Your task to perform on an android device: Search for logitech g910 on bestbuy.com, select the first entry, add it to the cart, then select checkout. Image 0: 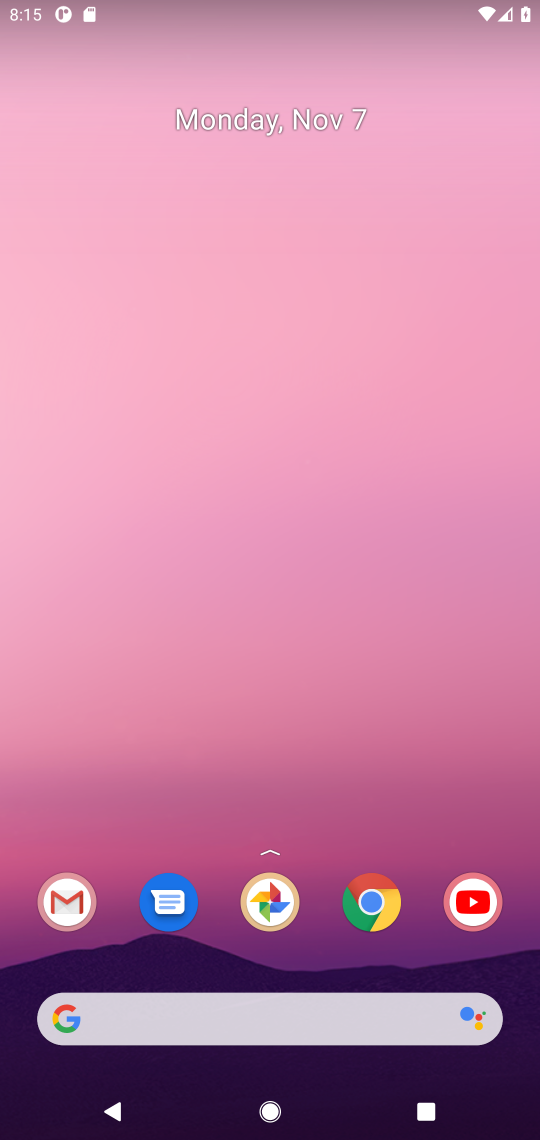
Step 0: click (358, 918)
Your task to perform on an android device: Search for logitech g910 on bestbuy.com, select the first entry, add it to the cart, then select checkout. Image 1: 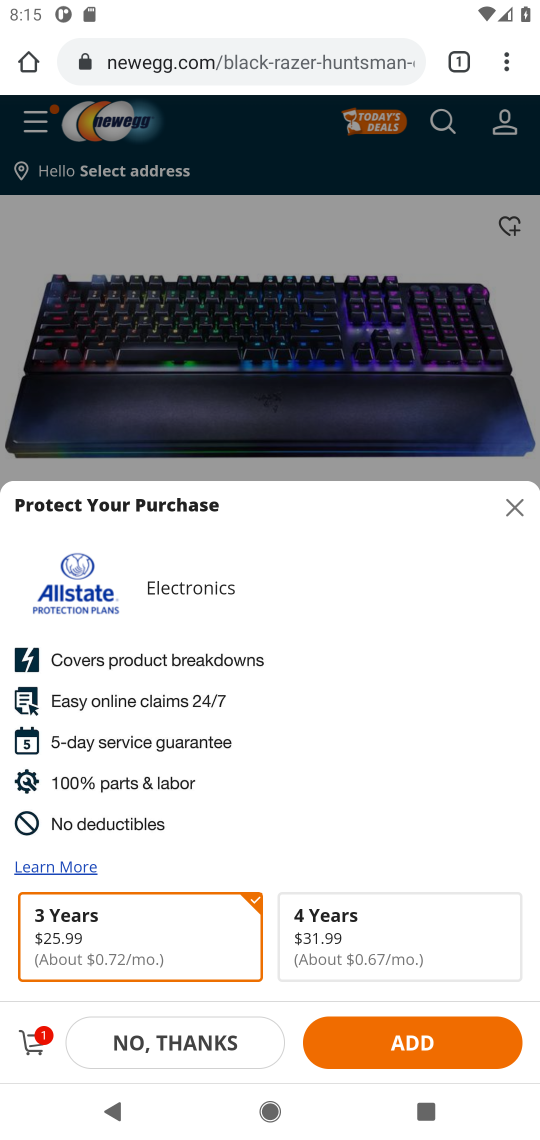
Step 1: click (210, 71)
Your task to perform on an android device: Search for logitech g910 on bestbuy.com, select the first entry, add it to the cart, then select checkout. Image 2: 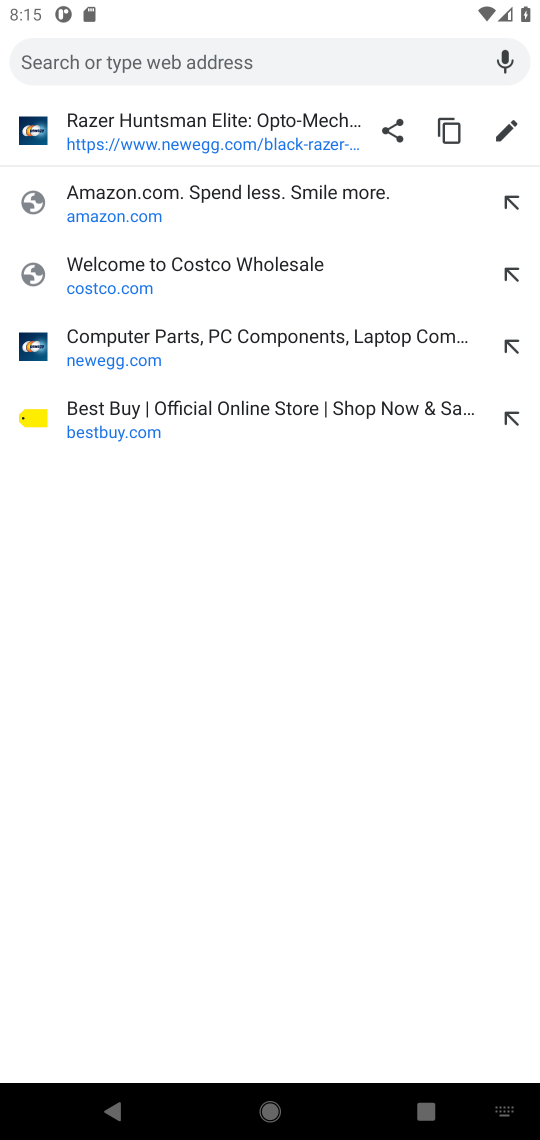
Step 2: click (140, 424)
Your task to perform on an android device: Search for logitech g910 on bestbuy.com, select the first entry, add it to the cart, then select checkout. Image 3: 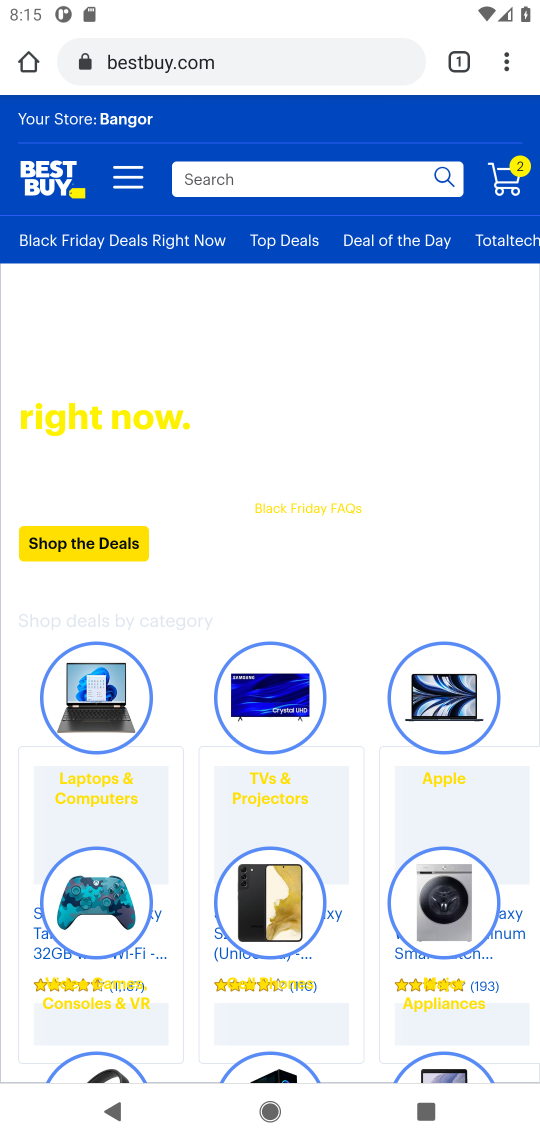
Step 3: click (196, 190)
Your task to perform on an android device: Search for logitech g910 on bestbuy.com, select the first entry, add it to the cart, then select checkout. Image 4: 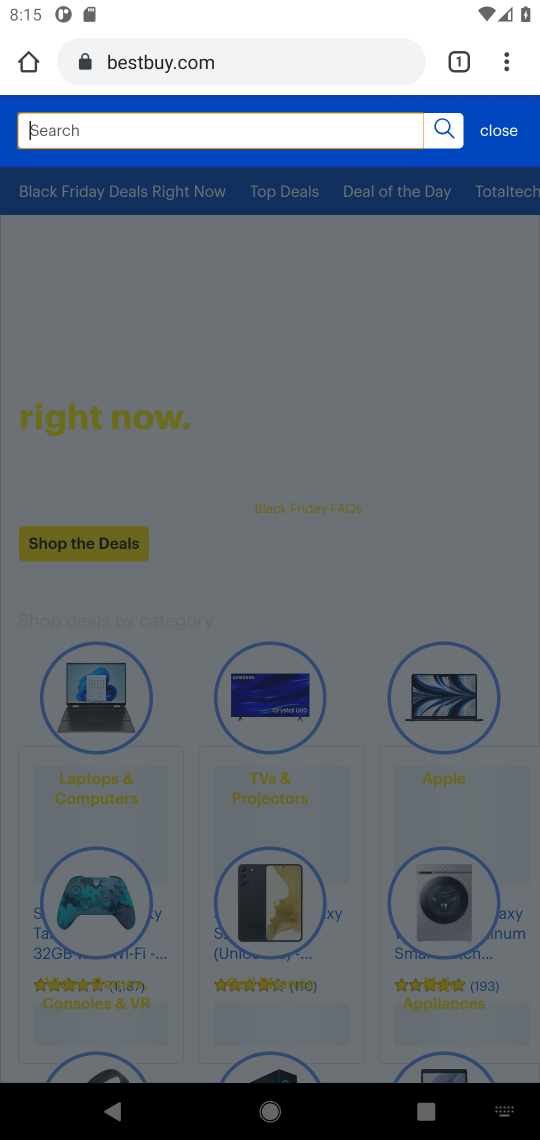
Step 4: type "logitech g910 "
Your task to perform on an android device: Search for logitech g910 on bestbuy.com, select the first entry, add it to the cart, then select checkout. Image 5: 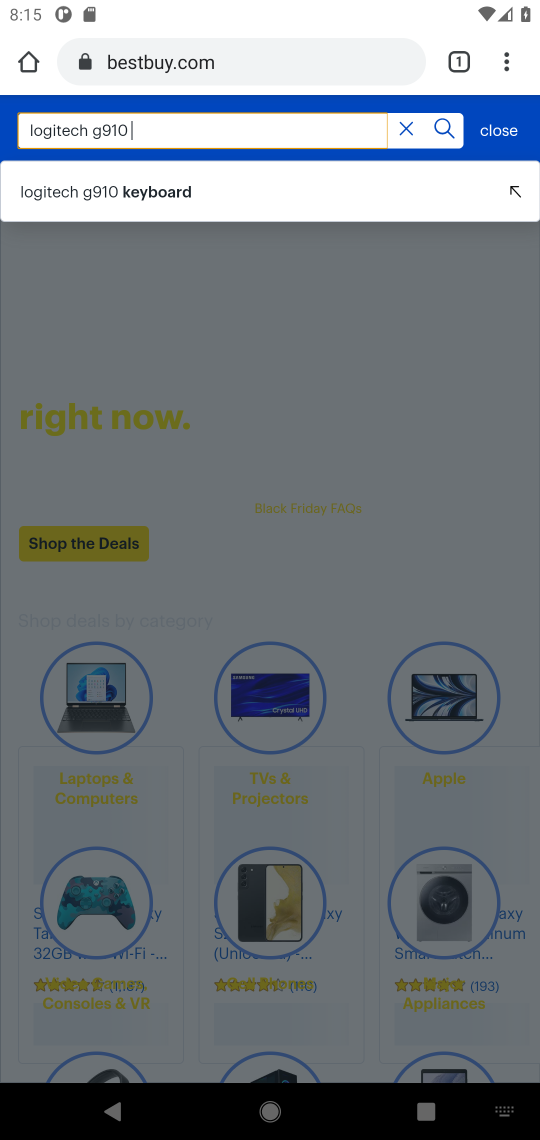
Step 5: click (446, 127)
Your task to perform on an android device: Search for logitech g910 on bestbuy.com, select the first entry, add it to the cart, then select checkout. Image 6: 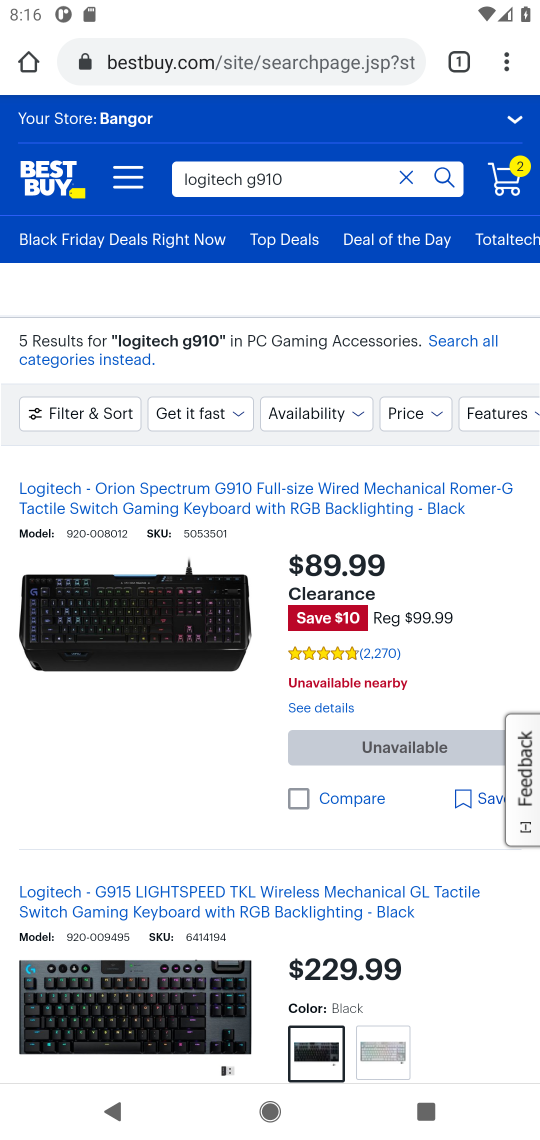
Step 6: click (167, 593)
Your task to perform on an android device: Search for logitech g910 on bestbuy.com, select the first entry, add it to the cart, then select checkout. Image 7: 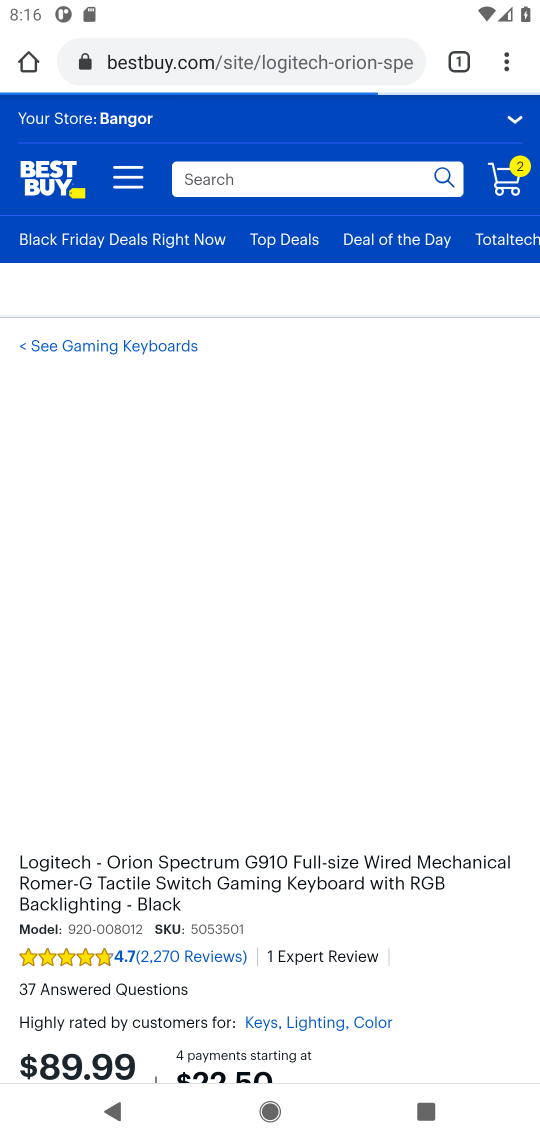
Step 7: task complete